Your task to perform on an android device: turn off airplane mode Image 0: 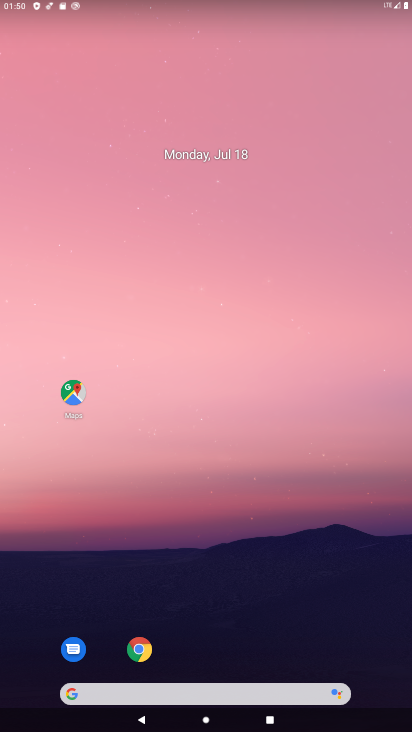
Step 0: drag from (157, 152) to (288, 9)
Your task to perform on an android device: turn off airplane mode Image 1: 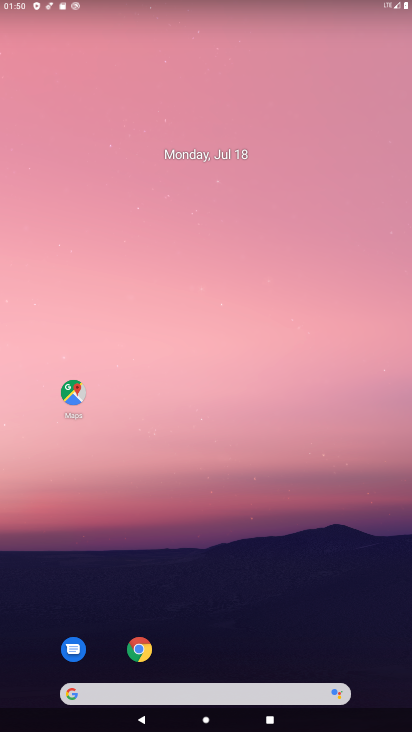
Step 1: drag from (172, 721) to (166, 11)
Your task to perform on an android device: turn off airplane mode Image 2: 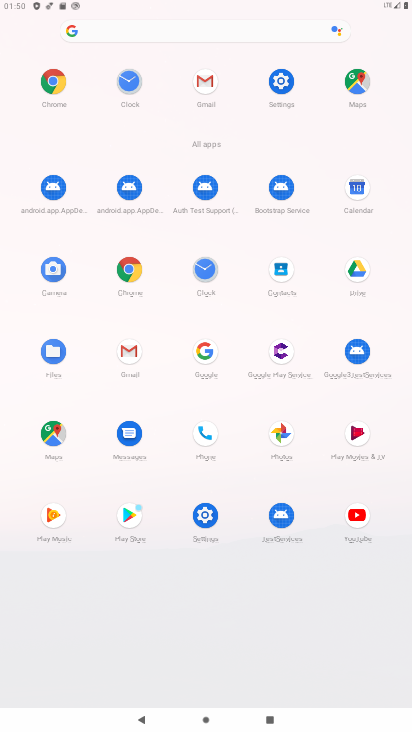
Step 2: click (283, 112)
Your task to perform on an android device: turn off airplane mode Image 3: 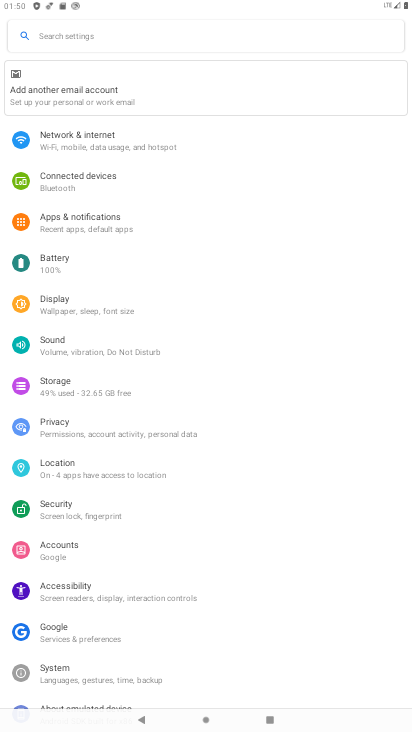
Step 3: click (147, 147)
Your task to perform on an android device: turn off airplane mode Image 4: 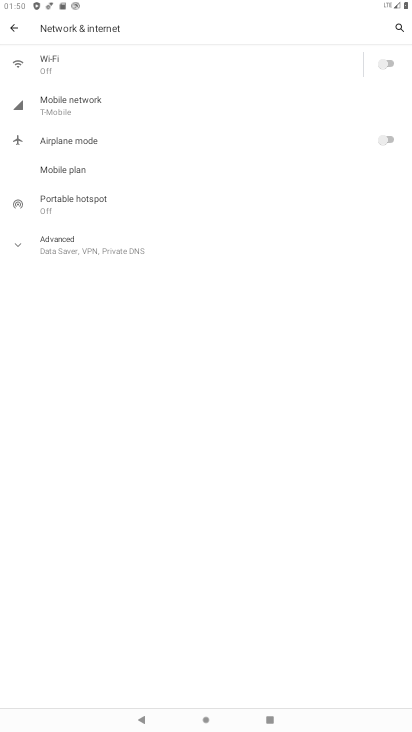
Step 4: task complete